Your task to perform on an android device: open sync settings in chrome Image 0: 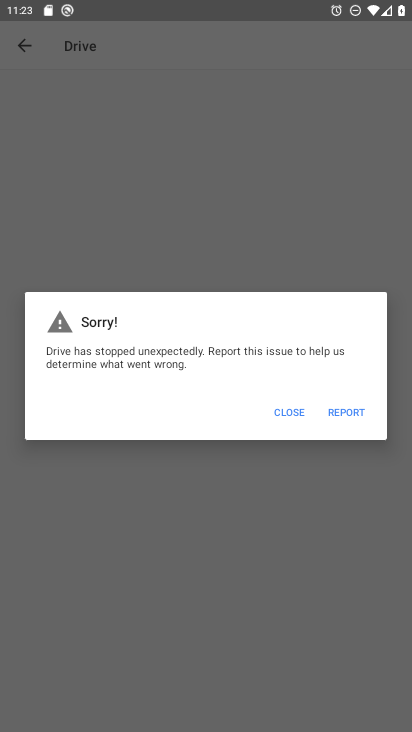
Step 0: press home button
Your task to perform on an android device: open sync settings in chrome Image 1: 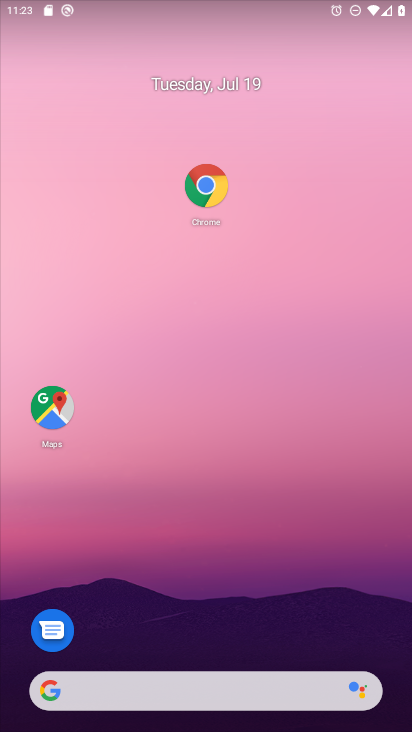
Step 1: drag from (209, 678) to (243, 321)
Your task to perform on an android device: open sync settings in chrome Image 2: 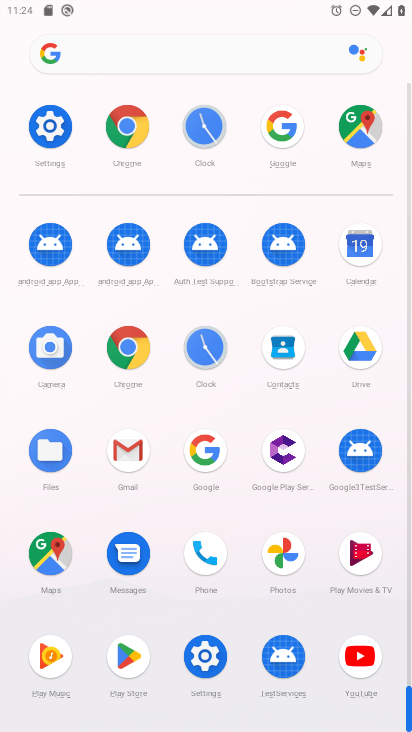
Step 2: click (138, 148)
Your task to perform on an android device: open sync settings in chrome Image 3: 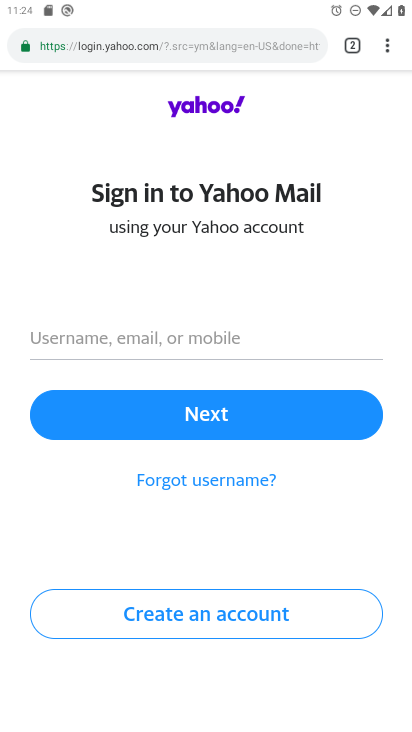
Step 3: click (381, 48)
Your task to perform on an android device: open sync settings in chrome Image 4: 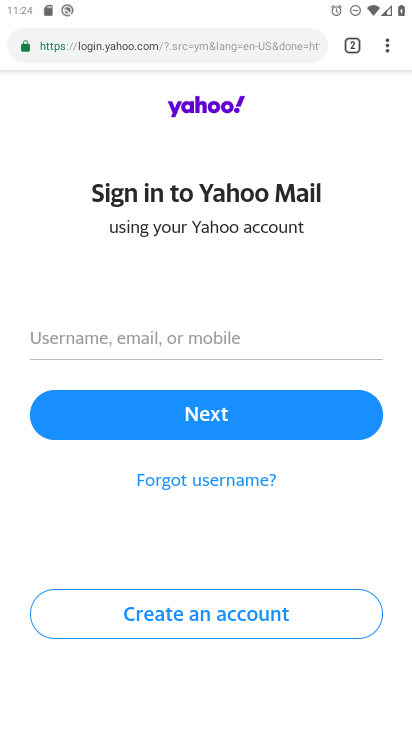
Step 4: click (387, 48)
Your task to perform on an android device: open sync settings in chrome Image 5: 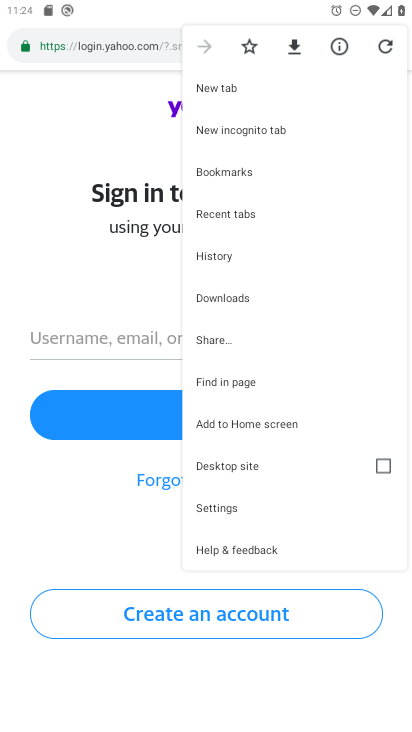
Step 5: click (216, 507)
Your task to perform on an android device: open sync settings in chrome Image 6: 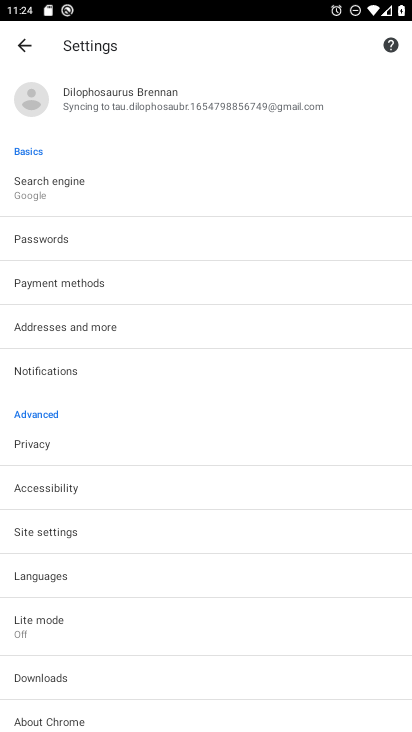
Step 6: click (198, 110)
Your task to perform on an android device: open sync settings in chrome Image 7: 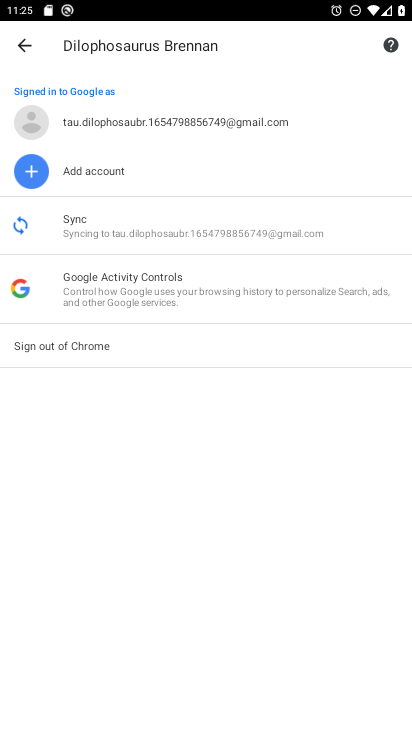
Step 7: click (162, 225)
Your task to perform on an android device: open sync settings in chrome Image 8: 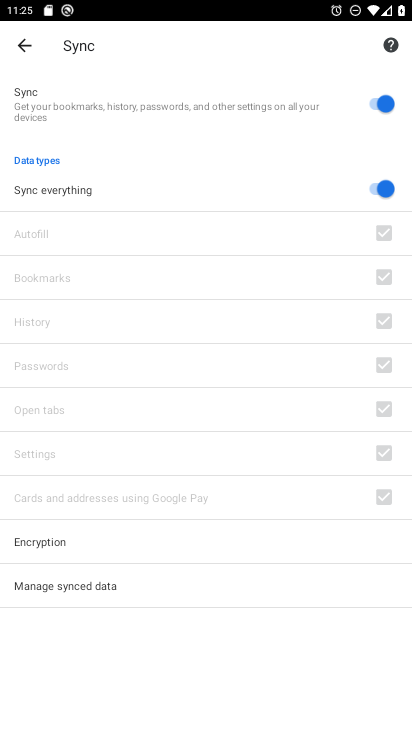
Step 8: task complete